Your task to perform on an android device: read, delete, or share a saved page in the chrome app Image 0: 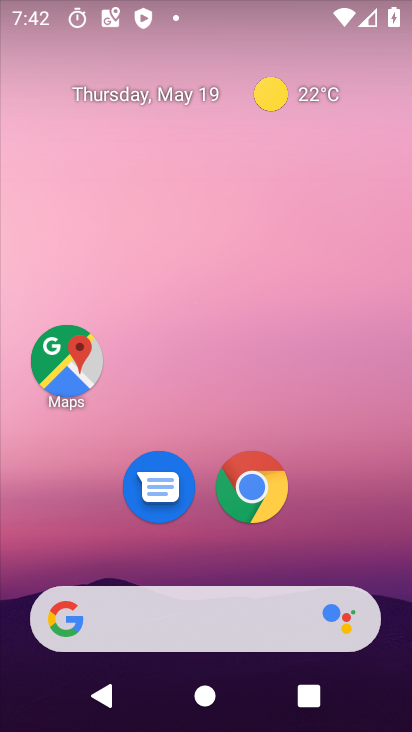
Step 0: press home button
Your task to perform on an android device: read, delete, or share a saved page in the chrome app Image 1: 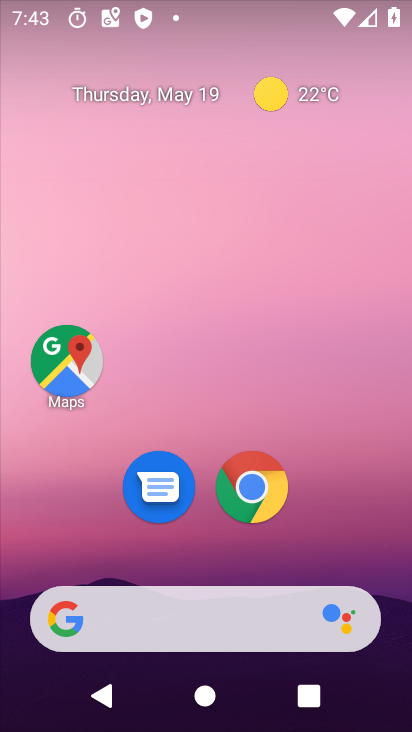
Step 1: drag from (261, 621) to (344, 235)
Your task to perform on an android device: read, delete, or share a saved page in the chrome app Image 2: 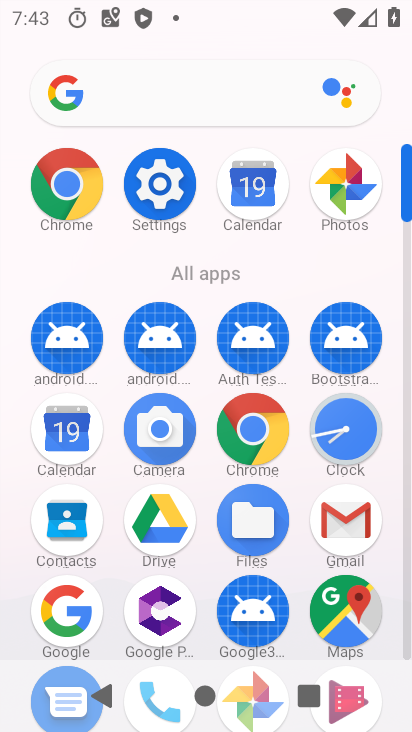
Step 2: click (72, 194)
Your task to perform on an android device: read, delete, or share a saved page in the chrome app Image 3: 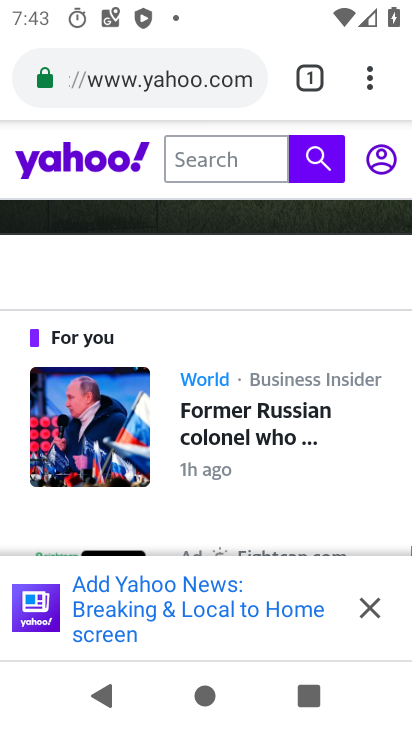
Step 3: drag from (372, 81) to (162, 510)
Your task to perform on an android device: read, delete, or share a saved page in the chrome app Image 4: 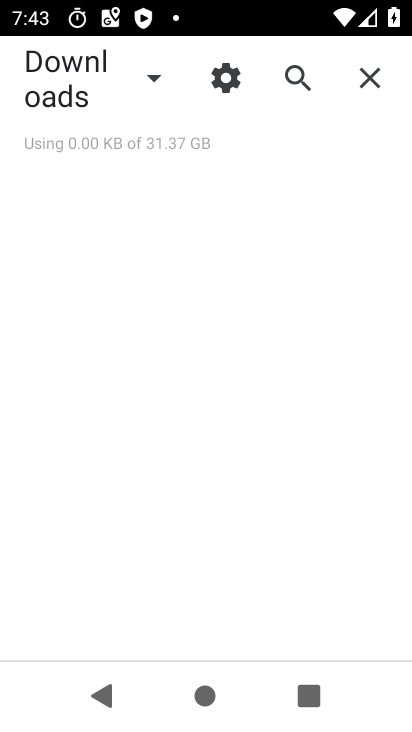
Step 4: click (145, 72)
Your task to perform on an android device: read, delete, or share a saved page in the chrome app Image 5: 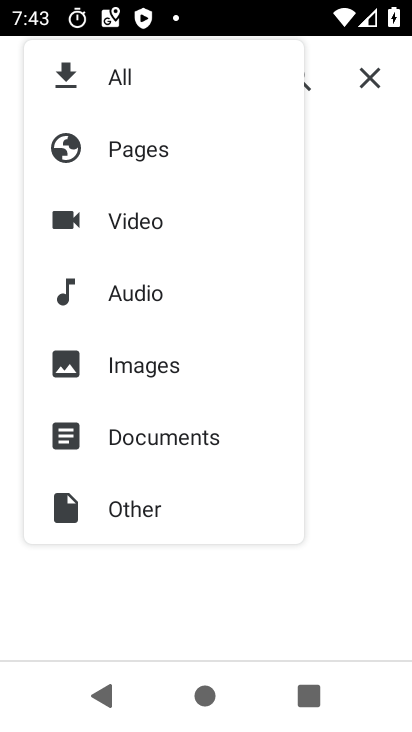
Step 5: click (130, 153)
Your task to perform on an android device: read, delete, or share a saved page in the chrome app Image 6: 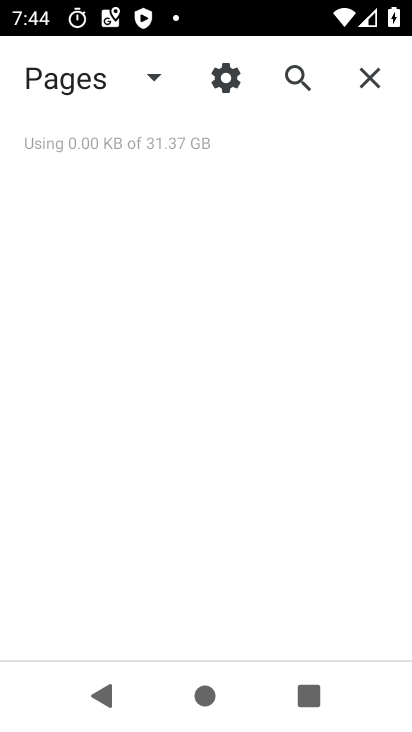
Step 6: task complete